Your task to perform on an android device: Open the Play Movies app and select the watchlist tab. Image 0: 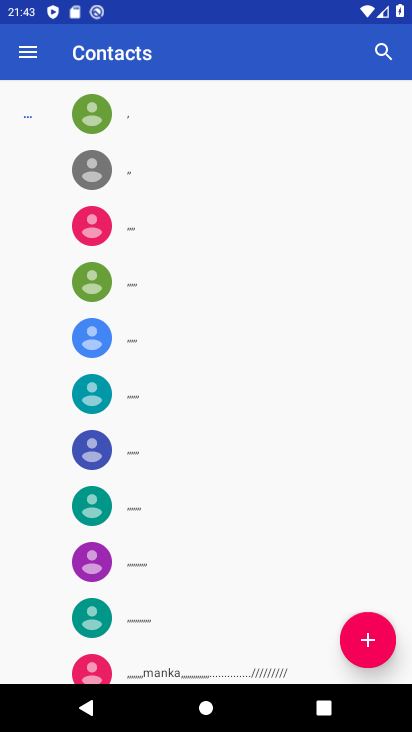
Step 0: press home button
Your task to perform on an android device: Open the Play Movies app and select the watchlist tab. Image 1: 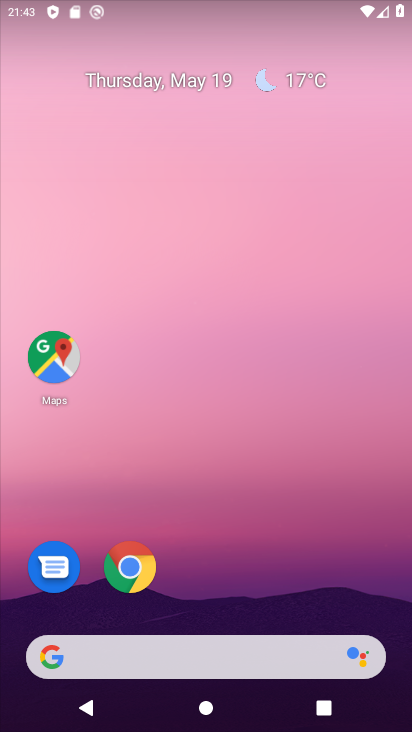
Step 1: drag from (313, 560) to (311, 60)
Your task to perform on an android device: Open the Play Movies app and select the watchlist tab. Image 2: 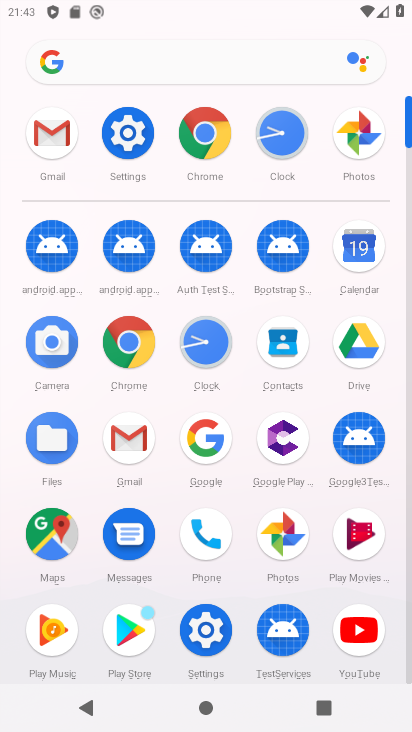
Step 2: click (363, 540)
Your task to perform on an android device: Open the Play Movies app and select the watchlist tab. Image 3: 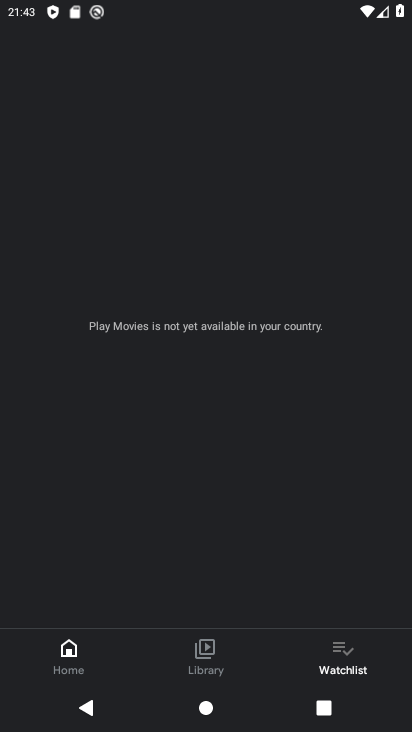
Step 3: click (355, 648)
Your task to perform on an android device: Open the Play Movies app and select the watchlist tab. Image 4: 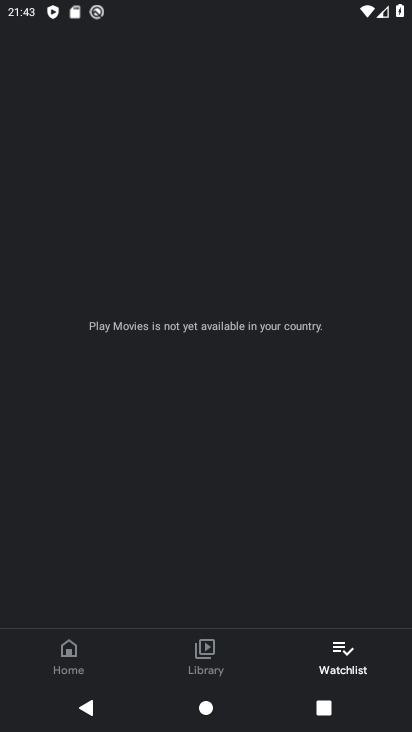
Step 4: task complete